Your task to perform on an android device: Open settings on Google Maps Image 0: 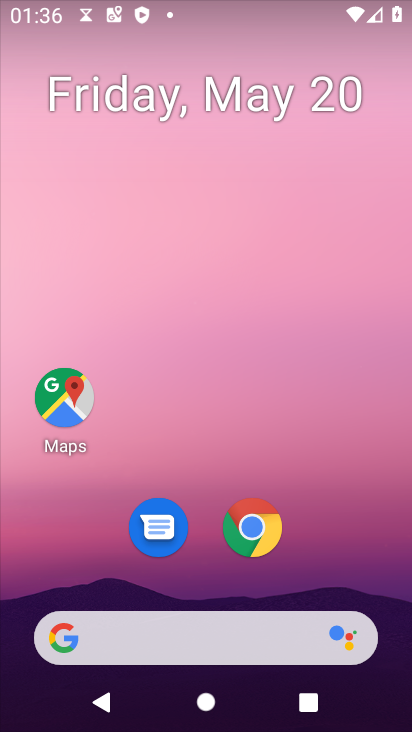
Step 0: click (67, 415)
Your task to perform on an android device: Open settings on Google Maps Image 1: 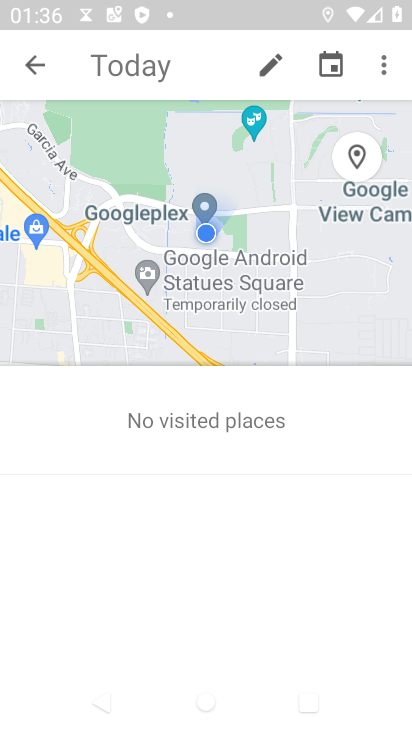
Step 1: click (34, 68)
Your task to perform on an android device: Open settings on Google Maps Image 2: 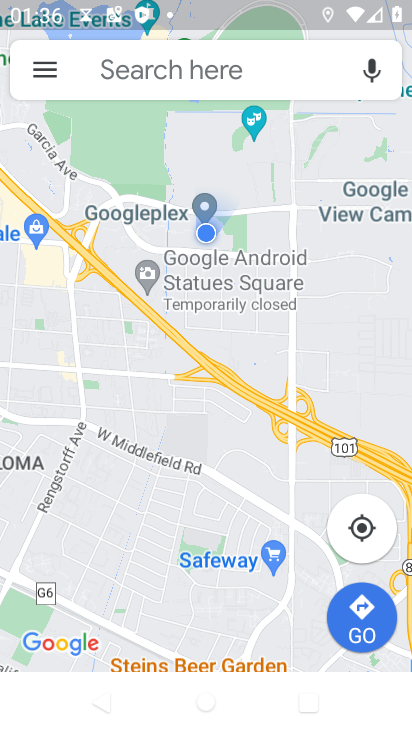
Step 2: click (46, 66)
Your task to perform on an android device: Open settings on Google Maps Image 3: 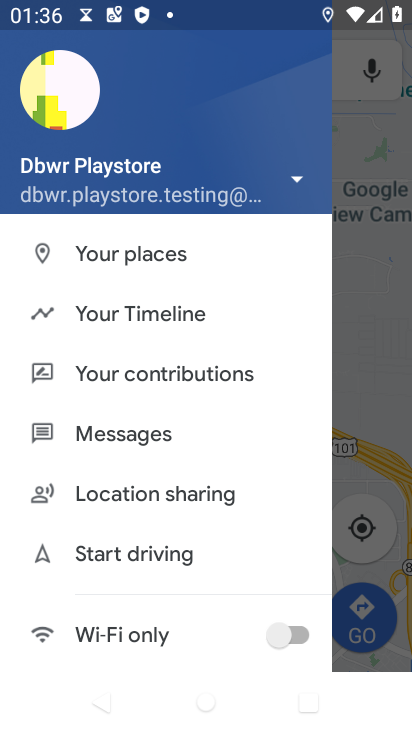
Step 3: drag from (193, 631) to (240, 18)
Your task to perform on an android device: Open settings on Google Maps Image 4: 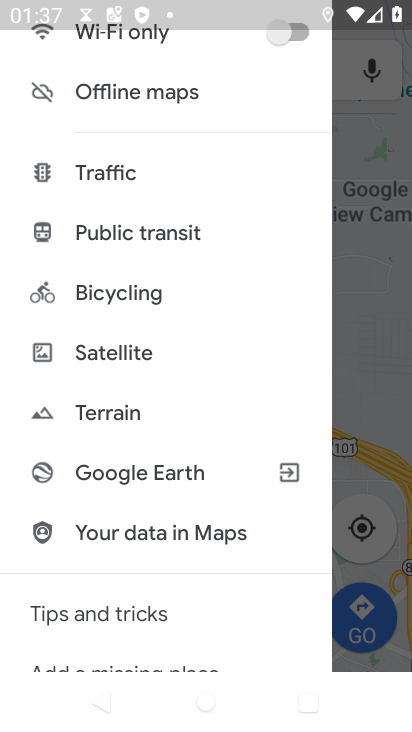
Step 4: drag from (167, 645) to (272, 95)
Your task to perform on an android device: Open settings on Google Maps Image 5: 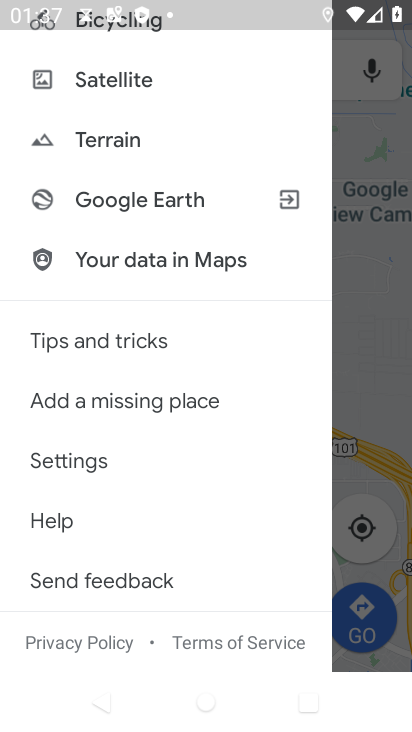
Step 5: click (78, 464)
Your task to perform on an android device: Open settings on Google Maps Image 6: 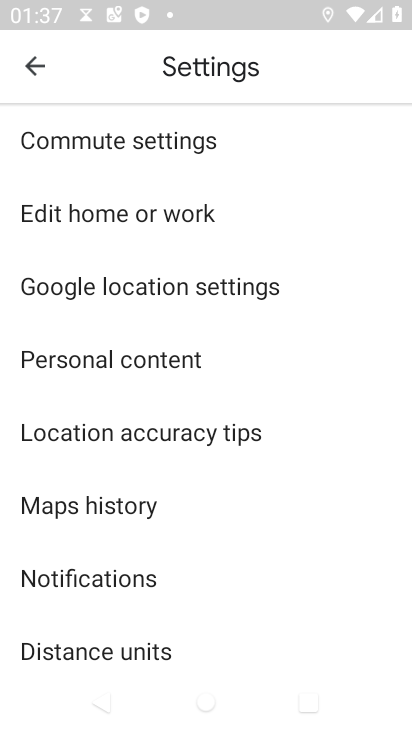
Step 6: task complete